Your task to perform on an android device: change the clock display to show seconds Image 0: 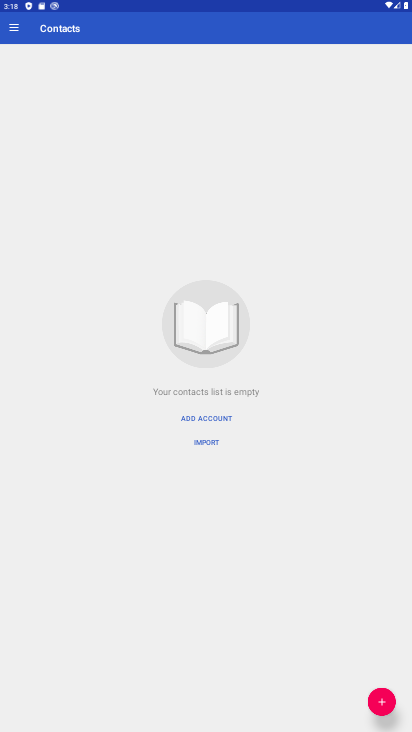
Step 0: press home button
Your task to perform on an android device: change the clock display to show seconds Image 1: 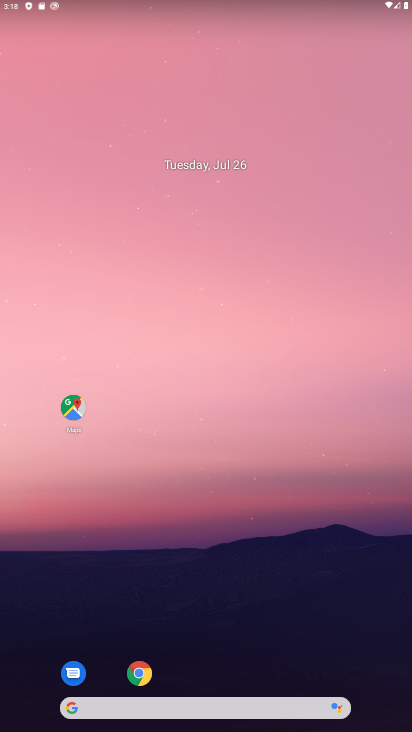
Step 1: drag from (295, 652) to (282, 97)
Your task to perform on an android device: change the clock display to show seconds Image 2: 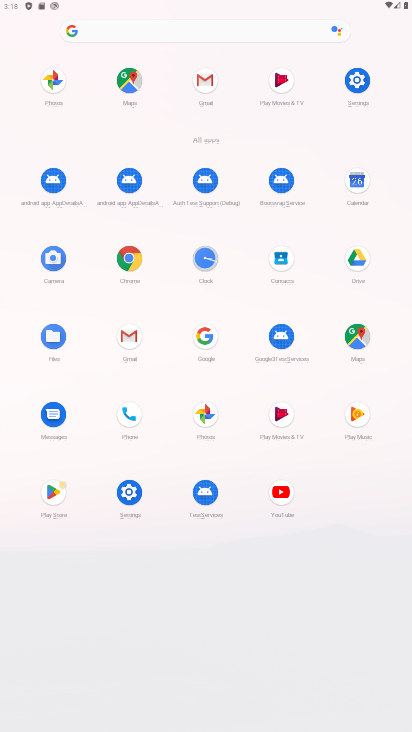
Step 2: click (200, 252)
Your task to perform on an android device: change the clock display to show seconds Image 3: 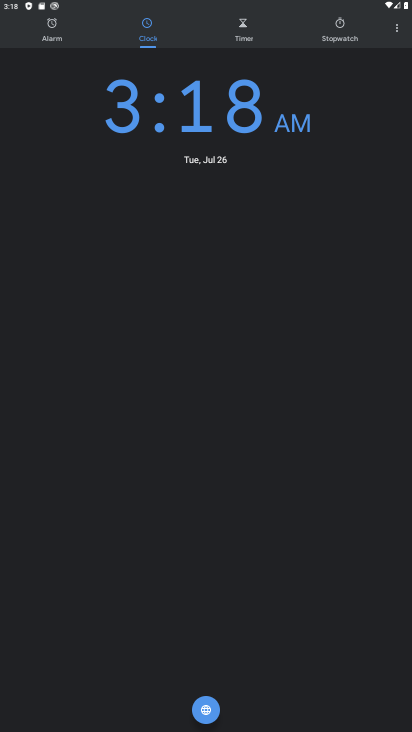
Step 3: click (395, 37)
Your task to perform on an android device: change the clock display to show seconds Image 4: 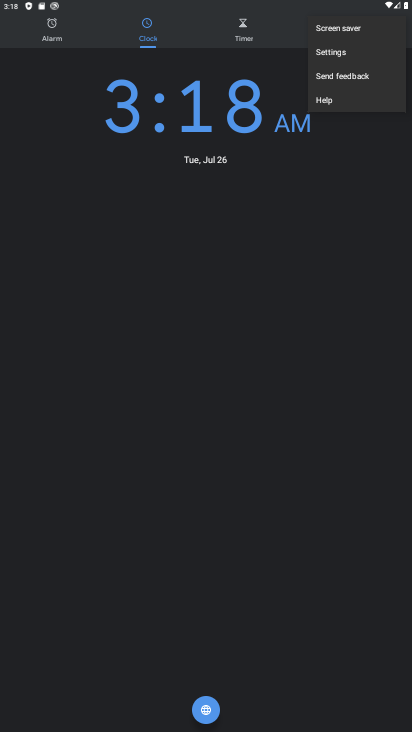
Step 4: click (342, 55)
Your task to perform on an android device: change the clock display to show seconds Image 5: 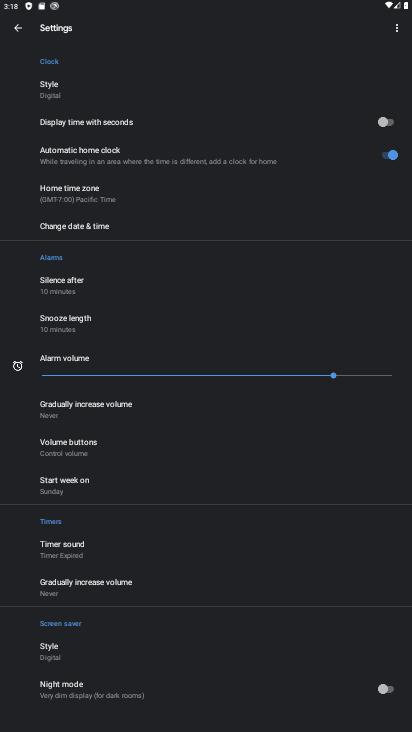
Step 5: click (388, 128)
Your task to perform on an android device: change the clock display to show seconds Image 6: 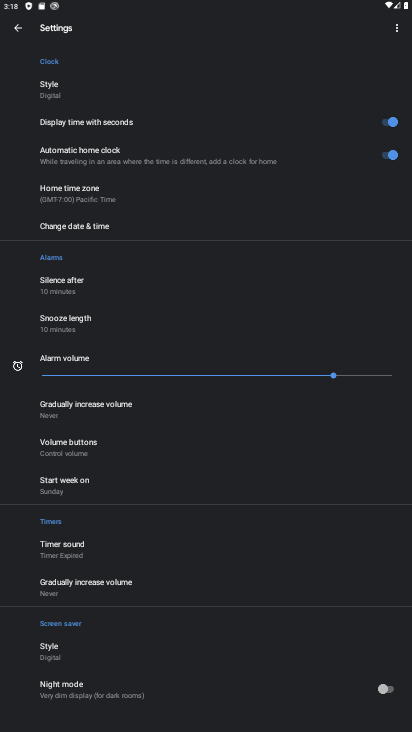
Step 6: task complete